Your task to perform on an android device: Check the news Image 0: 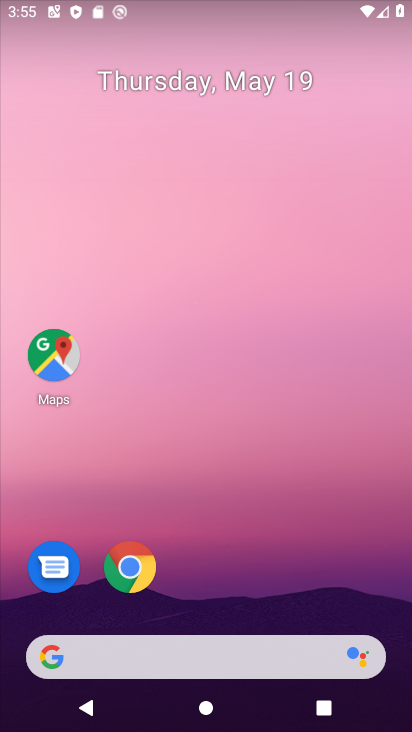
Step 0: click (169, 660)
Your task to perform on an android device: Check the news Image 1: 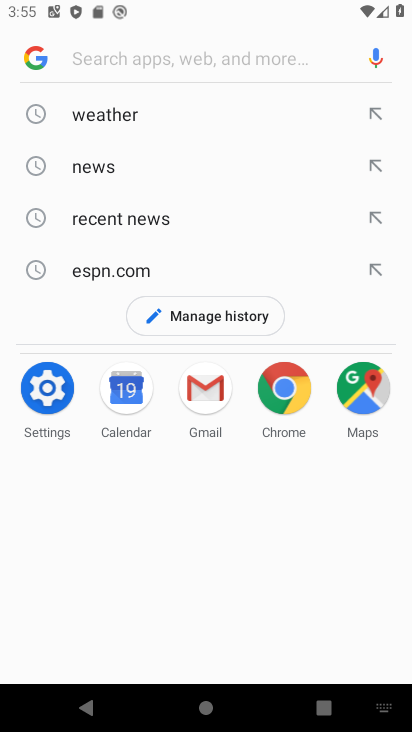
Step 1: click (80, 169)
Your task to perform on an android device: Check the news Image 2: 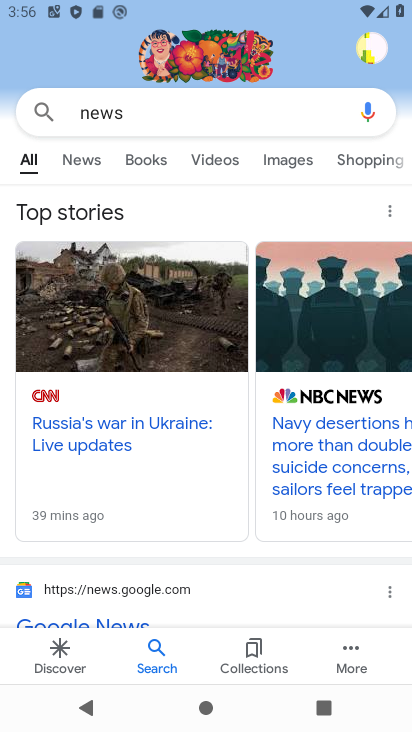
Step 2: task complete